Your task to perform on an android device: Open notification settings Image 0: 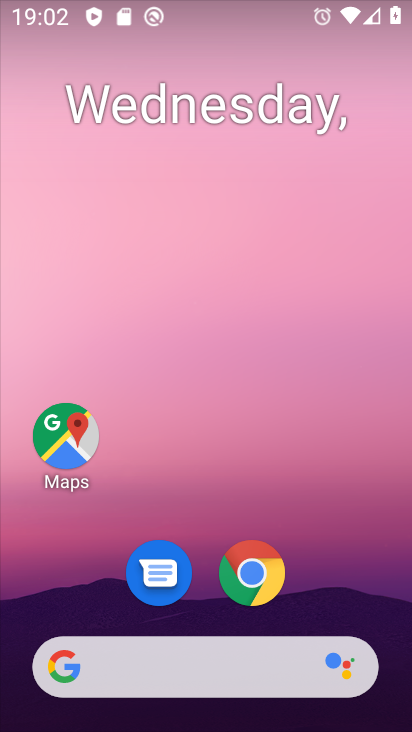
Step 0: drag from (362, 613) to (340, 127)
Your task to perform on an android device: Open notification settings Image 1: 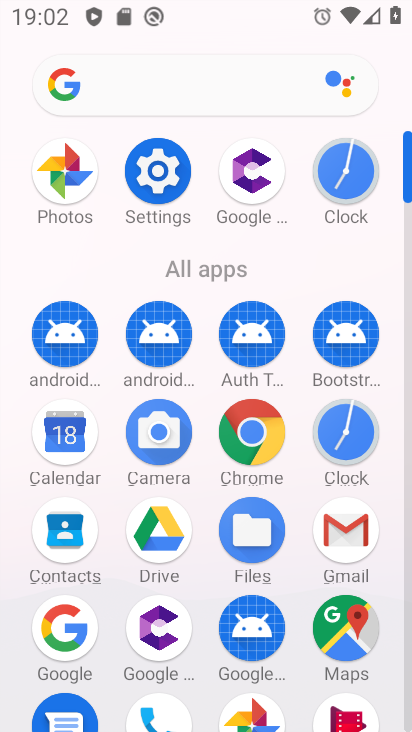
Step 1: click (154, 178)
Your task to perform on an android device: Open notification settings Image 2: 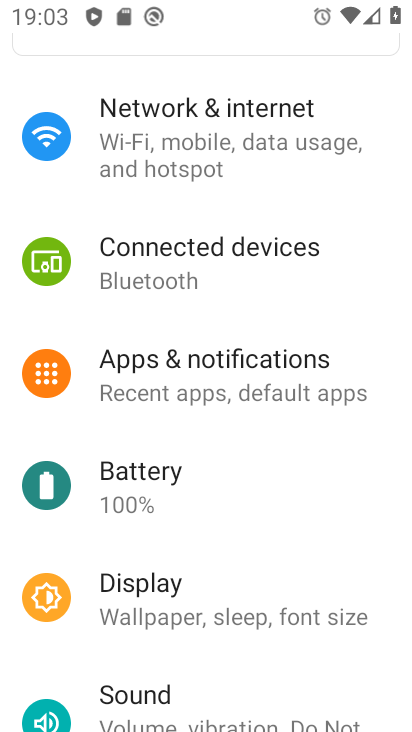
Step 2: drag from (344, 511) to (318, 146)
Your task to perform on an android device: Open notification settings Image 3: 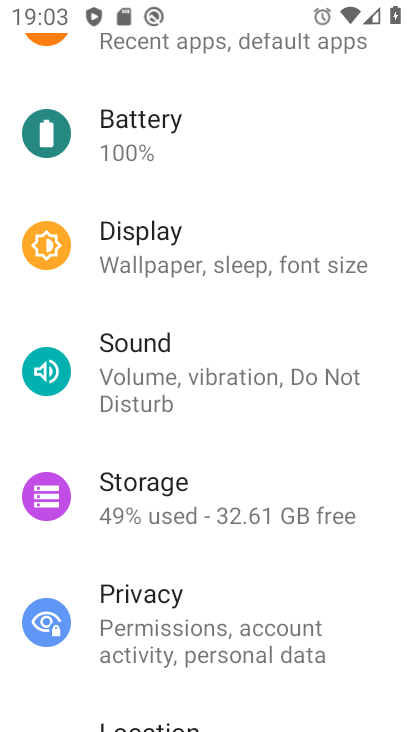
Step 3: drag from (271, 175) to (181, 668)
Your task to perform on an android device: Open notification settings Image 4: 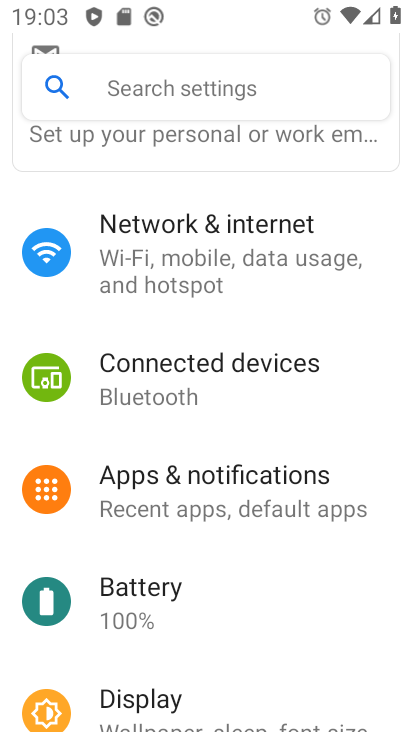
Step 4: drag from (213, 229) to (204, 620)
Your task to perform on an android device: Open notification settings Image 5: 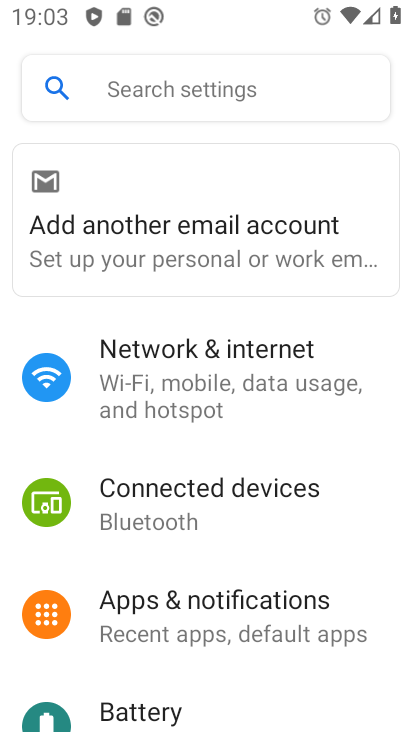
Step 5: click (182, 631)
Your task to perform on an android device: Open notification settings Image 6: 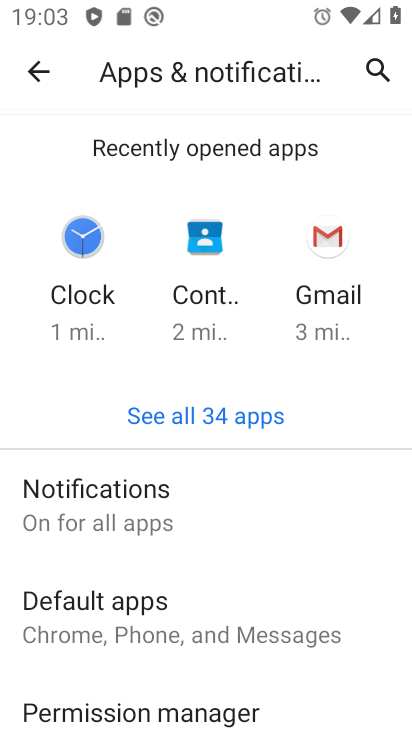
Step 6: click (192, 512)
Your task to perform on an android device: Open notification settings Image 7: 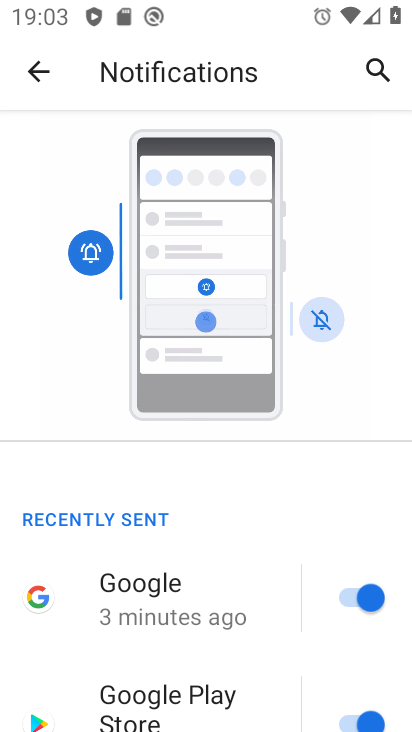
Step 7: task complete